Your task to perform on an android device: add a contact Image 0: 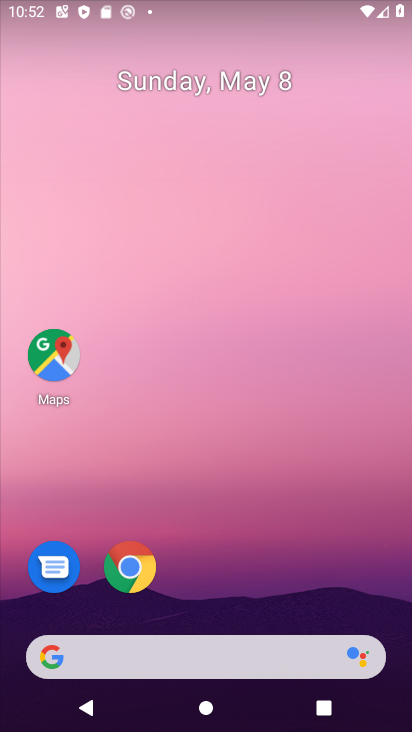
Step 0: drag from (212, 620) to (240, 46)
Your task to perform on an android device: add a contact Image 1: 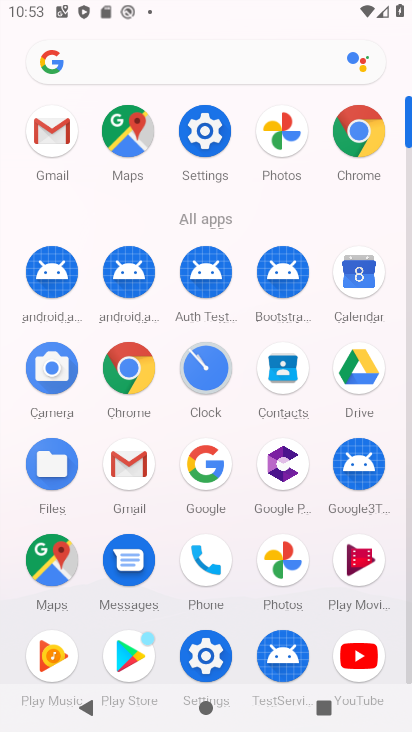
Step 1: click (281, 361)
Your task to perform on an android device: add a contact Image 2: 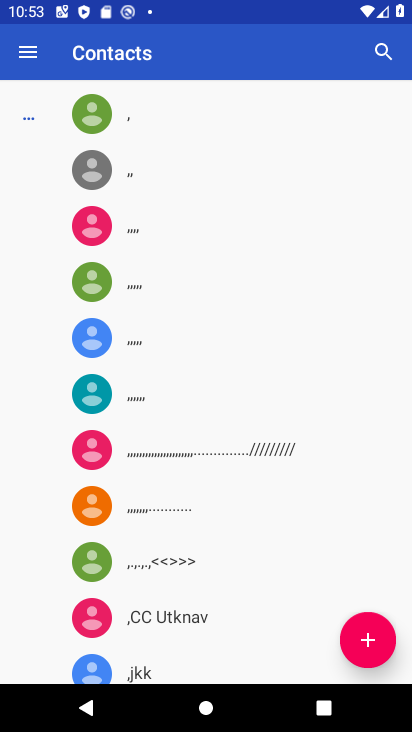
Step 2: click (371, 640)
Your task to perform on an android device: add a contact Image 3: 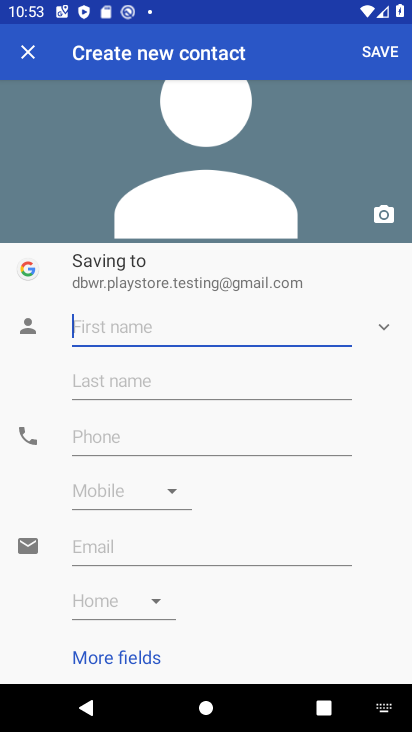
Step 3: type "gftrs"
Your task to perform on an android device: add a contact Image 4: 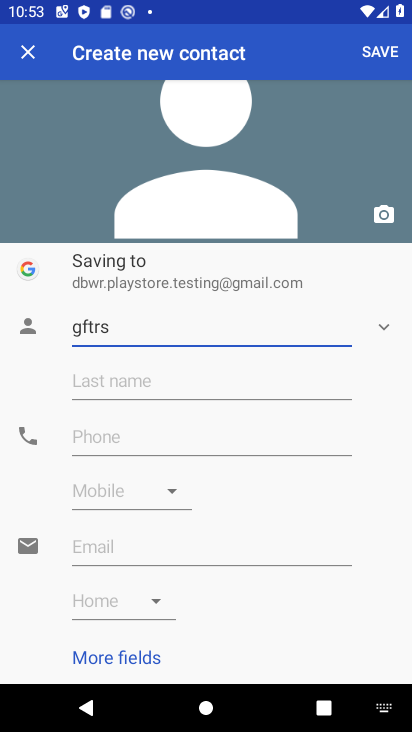
Step 4: click (377, 41)
Your task to perform on an android device: add a contact Image 5: 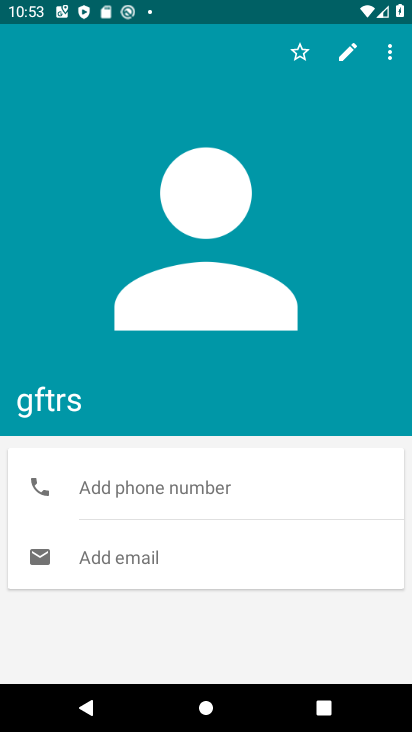
Step 5: task complete